Your task to perform on an android device: Open Google Chrome and click the shortcut for Amazon.com Image 0: 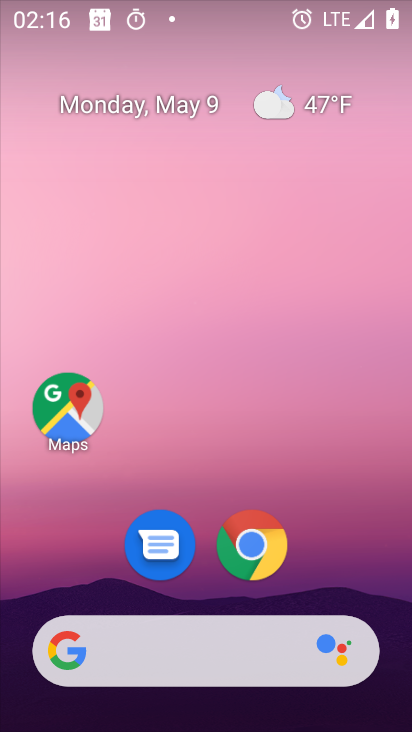
Step 0: drag from (332, 594) to (348, 9)
Your task to perform on an android device: Open Google Chrome and click the shortcut for Amazon.com Image 1: 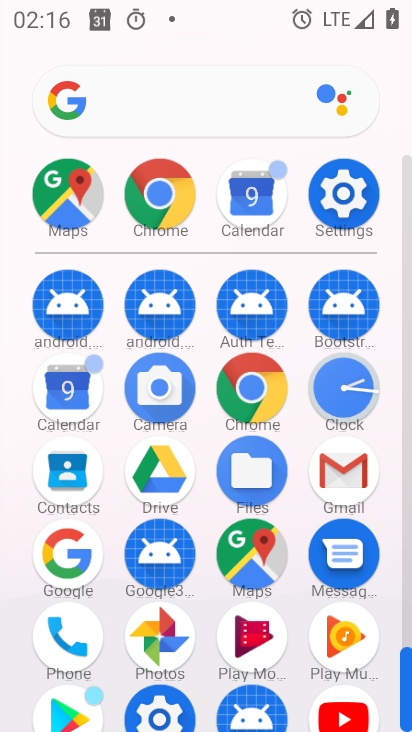
Step 1: click (261, 379)
Your task to perform on an android device: Open Google Chrome and click the shortcut for Amazon.com Image 2: 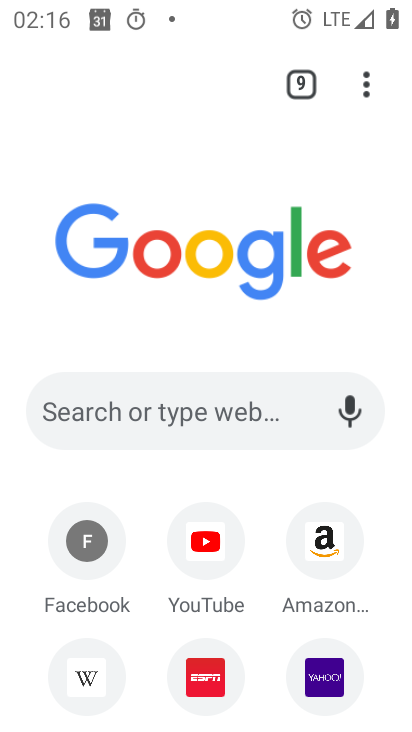
Step 2: drag from (360, 89) to (242, 630)
Your task to perform on an android device: Open Google Chrome and click the shortcut for Amazon.com Image 3: 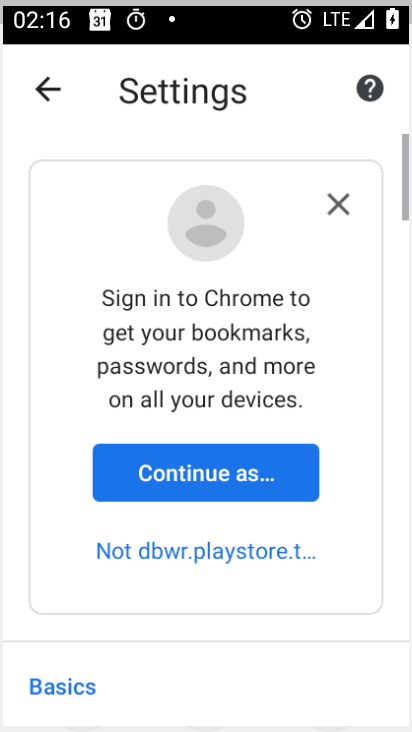
Step 3: press back button
Your task to perform on an android device: Open Google Chrome and click the shortcut for Amazon.com Image 4: 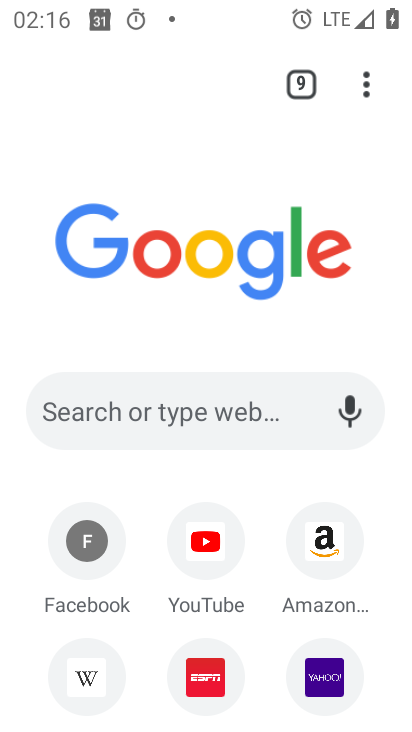
Step 4: click (316, 550)
Your task to perform on an android device: Open Google Chrome and click the shortcut for Amazon.com Image 5: 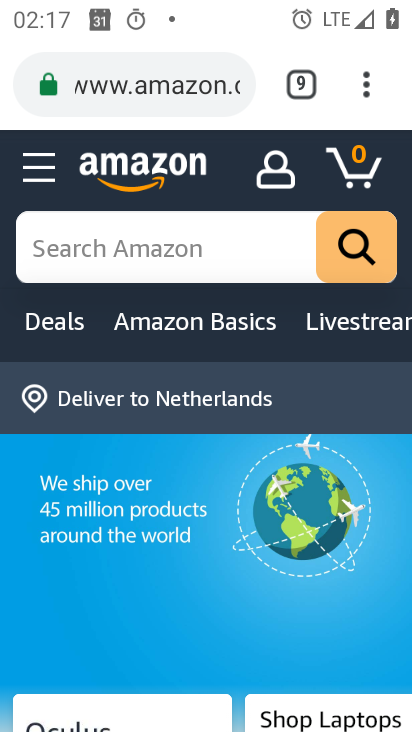
Step 5: drag from (370, 90) to (177, 439)
Your task to perform on an android device: Open Google Chrome and click the shortcut for Amazon.com Image 6: 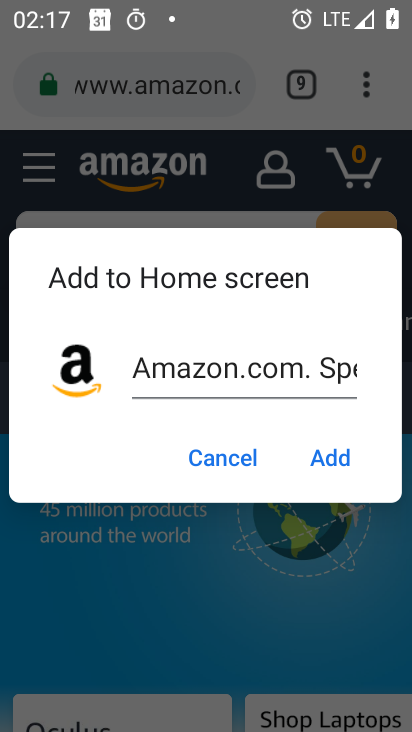
Step 6: click (332, 452)
Your task to perform on an android device: Open Google Chrome and click the shortcut for Amazon.com Image 7: 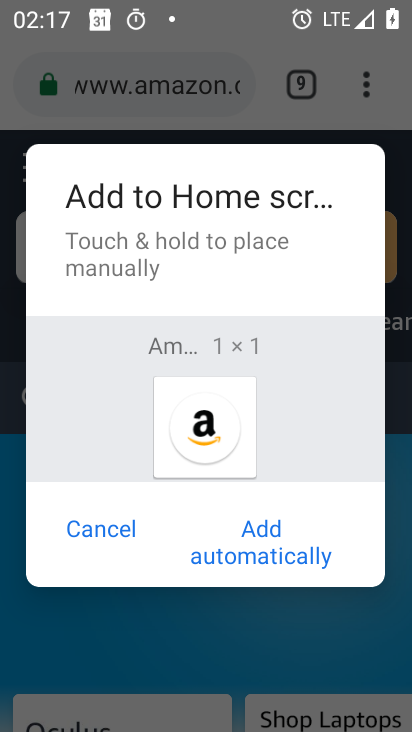
Step 7: click (286, 534)
Your task to perform on an android device: Open Google Chrome and click the shortcut for Amazon.com Image 8: 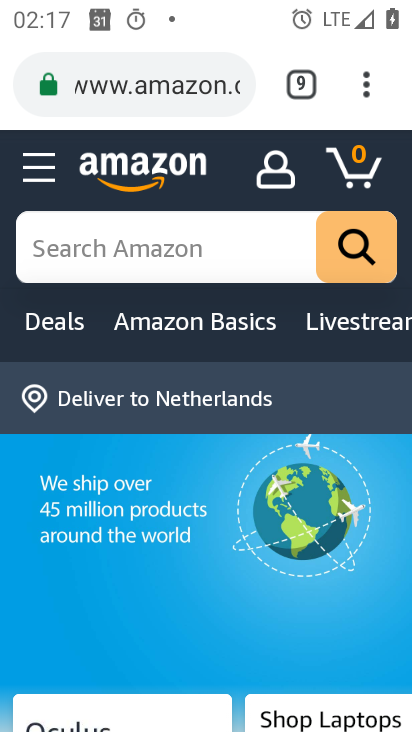
Step 8: task complete